Your task to perform on an android device: Is it going to rain this weekend? Image 0: 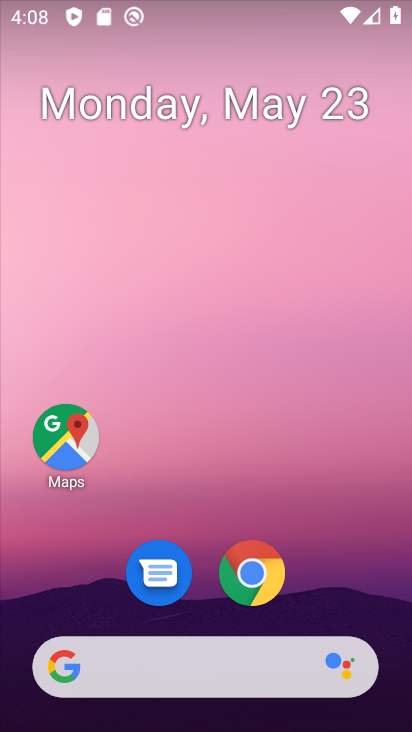
Step 0: drag from (234, 726) to (243, 35)
Your task to perform on an android device: Is it going to rain this weekend? Image 1: 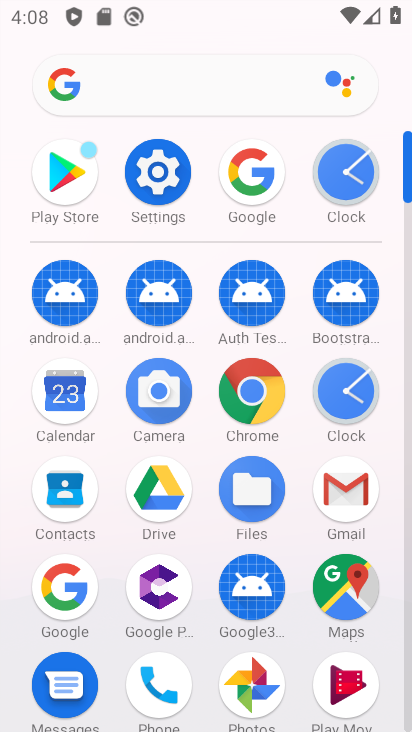
Step 1: click (253, 168)
Your task to perform on an android device: Is it going to rain this weekend? Image 2: 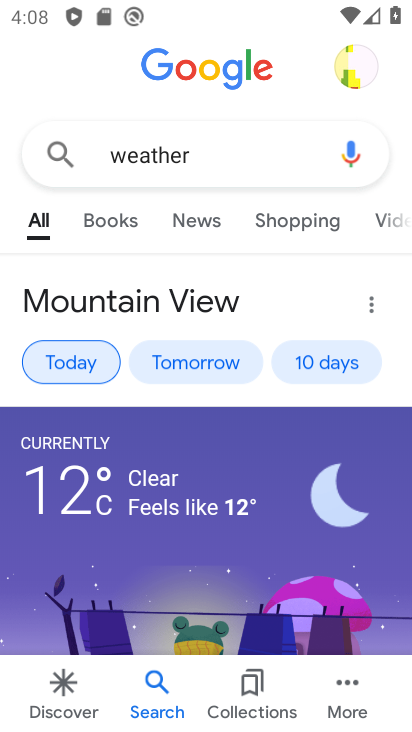
Step 2: click (315, 359)
Your task to perform on an android device: Is it going to rain this weekend? Image 3: 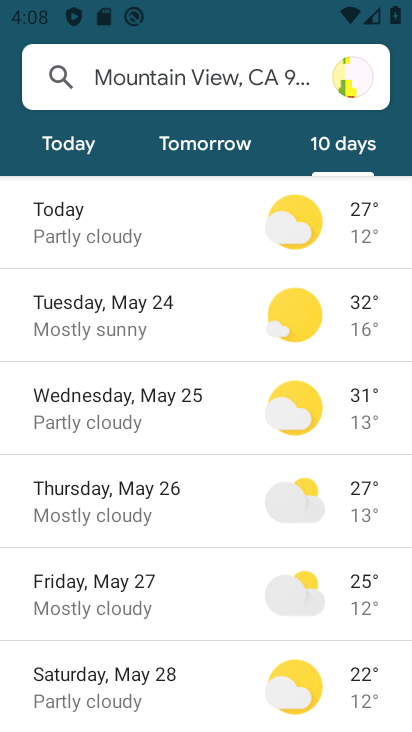
Step 3: click (71, 677)
Your task to perform on an android device: Is it going to rain this weekend? Image 4: 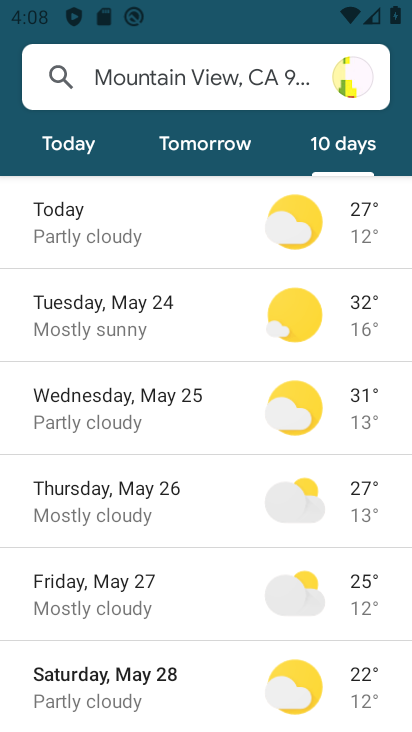
Step 4: task complete